Your task to perform on an android device: Open Google Maps Image 0: 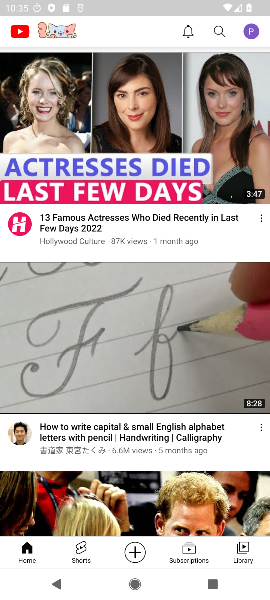
Step 0: press home button
Your task to perform on an android device: Open Google Maps Image 1: 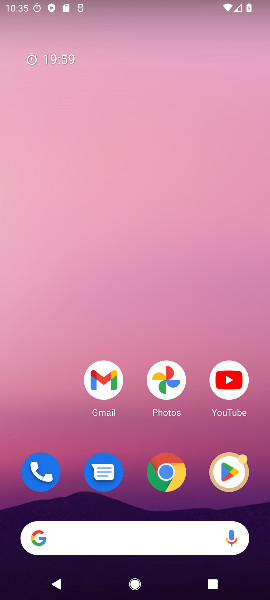
Step 1: drag from (171, 310) to (135, 0)
Your task to perform on an android device: Open Google Maps Image 2: 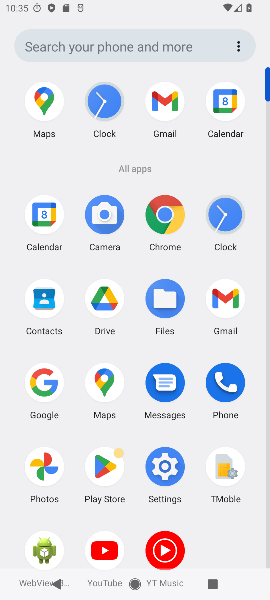
Step 2: click (31, 91)
Your task to perform on an android device: Open Google Maps Image 3: 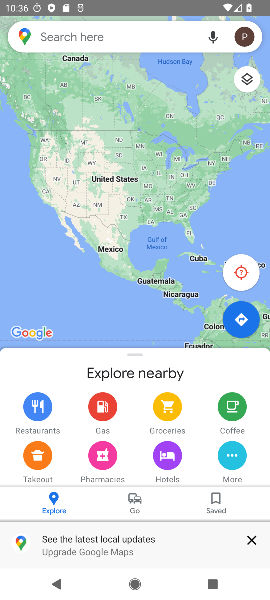
Step 3: task complete